Your task to perform on an android device: Open calendar and show me the third week of next month Image 0: 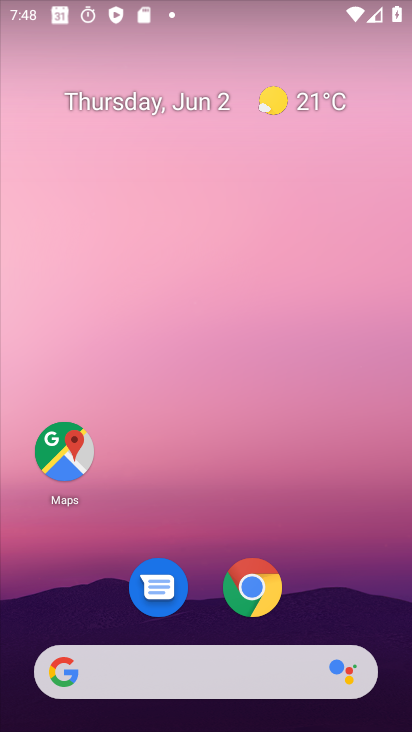
Step 0: drag from (331, 582) to (291, 9)
Your task to perform on an android device: Open calendar and show me the third week of next month Image 1: 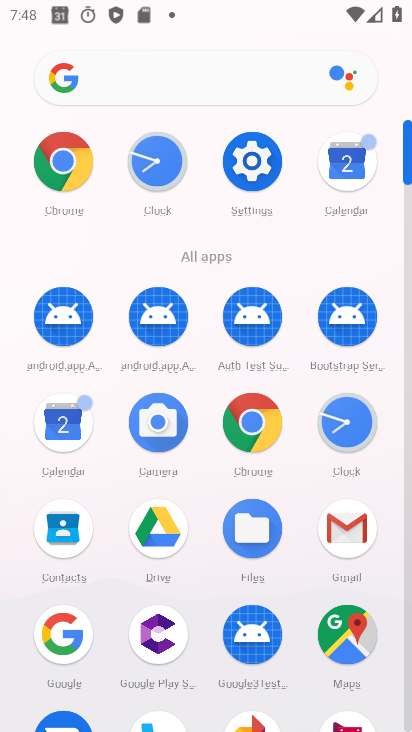
Step 1: click (348, 170)
Your task to perform on an android device: Open calendar and show me the third week of next month Image 2: 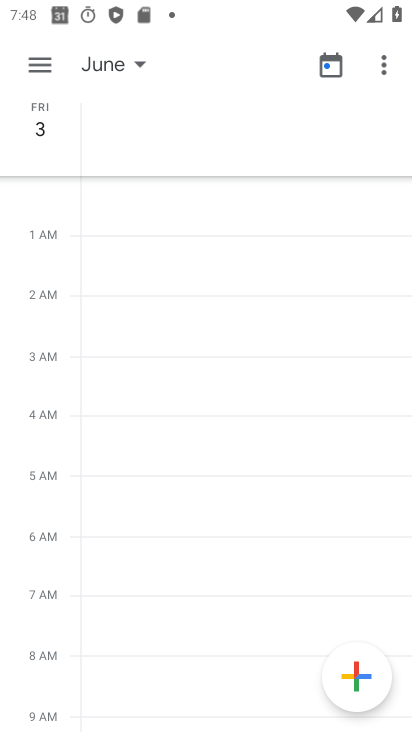
Step 2: click (142, 66)
Your task to perform on an android device: Open calendar and show me the third week of next month Image 3: 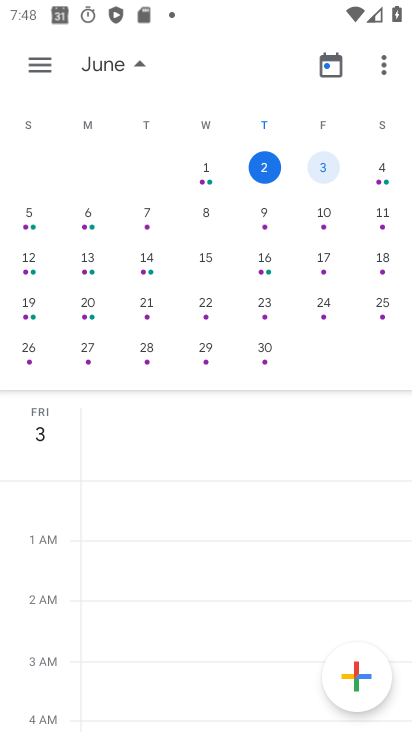
Step 3: drag from (351, 269) to (12, 91)
Your task to perform on an android device: Open calendar and show me the third week of next month Image 4: 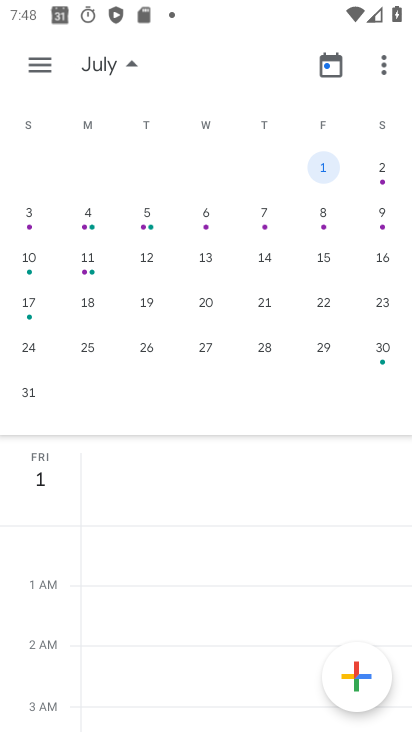
Step 4: click (45, 57)
Your task to perform on an android device: Open calendar and show me the third week of next month Image 5: 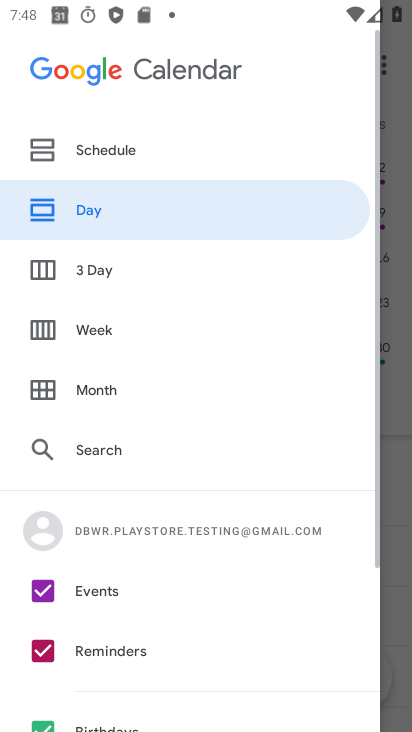
Step 5: click (97, 332)
Your task to perform on an android device: Open calendar and show me the third week of next month Image 6: 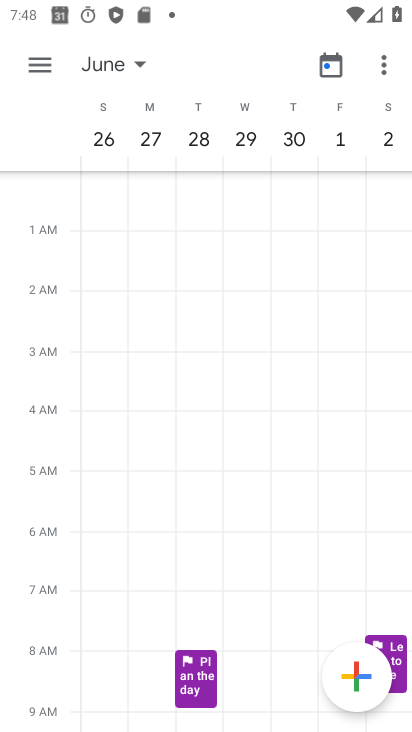
Step 6: task complete